Your task to perform on an android device: See recent photos Image 0: 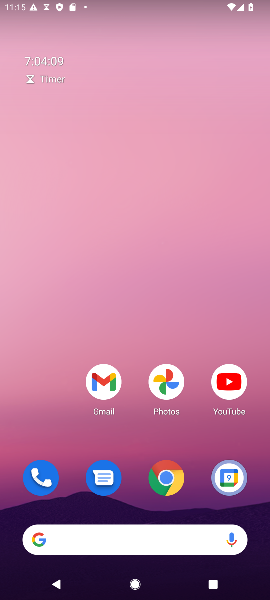
Step 0: click (170, 391)
Your task to perform on an android device: See recent photos Image 1: 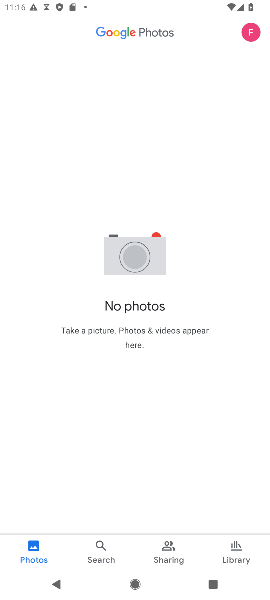
Step 1: task complete